Your task to perform on an android device: clear history in the chrome app Image 0: 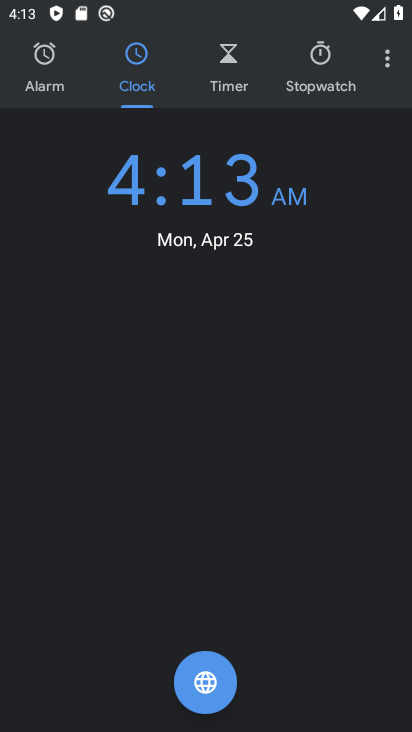
Step 0: press back button
Your task to perform on an android device: clear history in the chrome app Image 1: 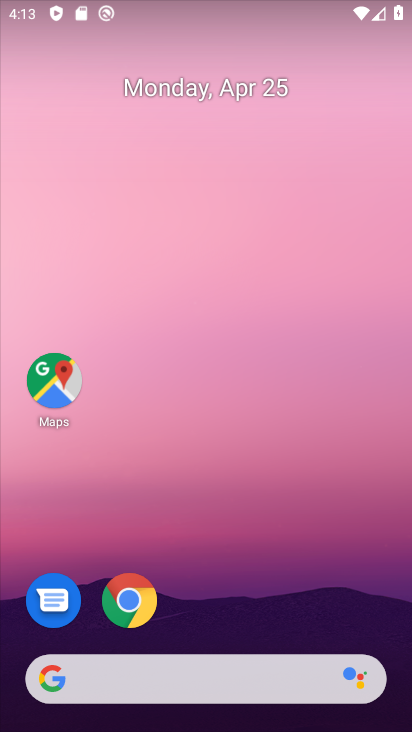
Step 1: click (131, 613)
Your task to perform on an android device: clear history in the chrome app Image 2: 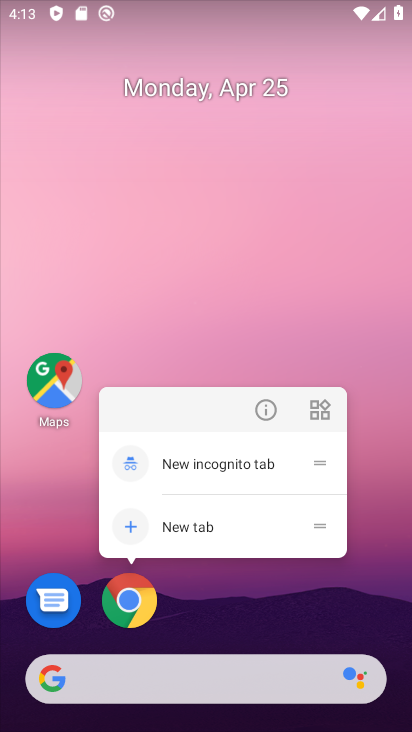
Step 2: click (128, 607)
Your task to perform on an android device: clear history in the chrome app Image 3: 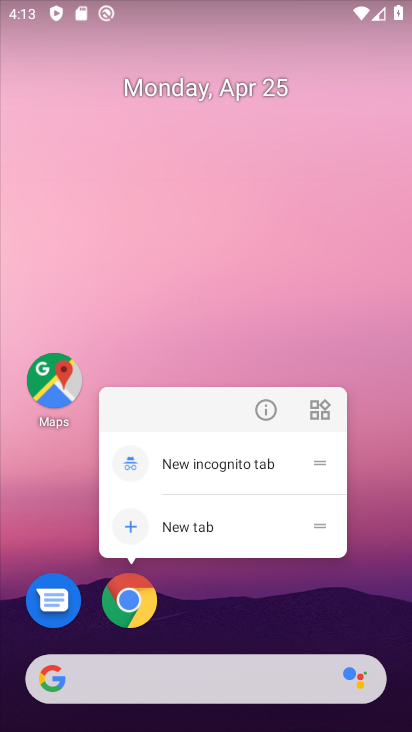
Step 3: click (126, 610)
Your task to perform on an android device: clear history in the chrome app Image 4: 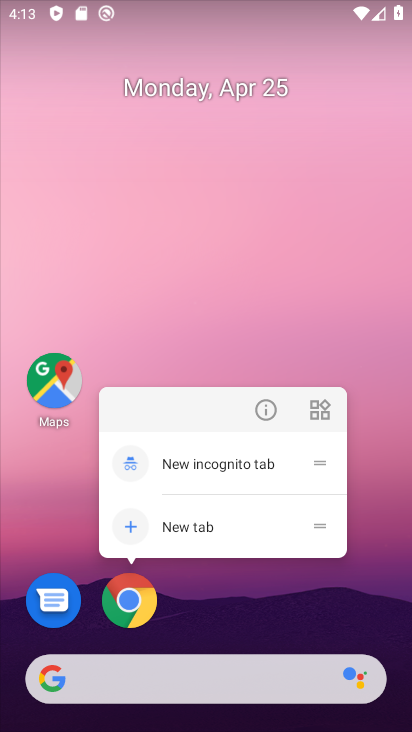
Step 4: click (124, 612)
Your task to perform on an android device: clear history in the chrome app Image 5: 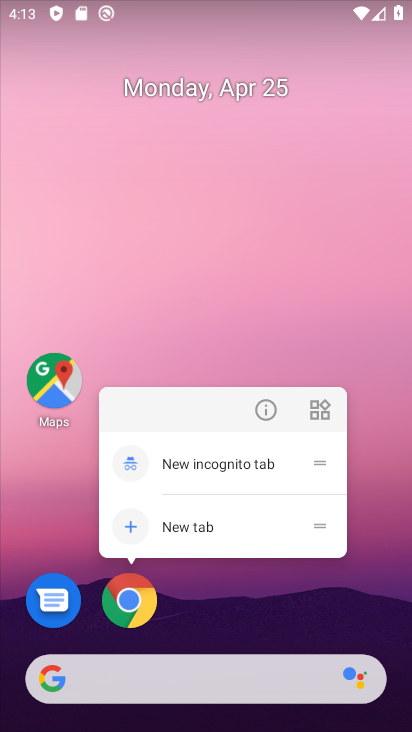
Step 5: click (138, 608)
Your task to perform on an android device: clear history in the chrome app Image 6: 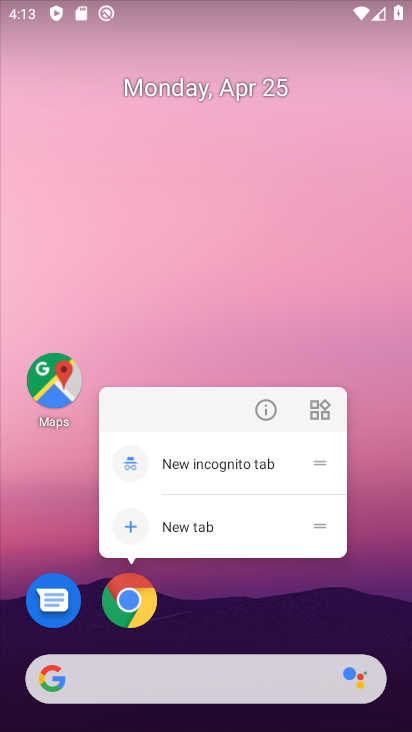
Step 6: click (135, 608)
Your task to perform on an android device: clear history in the chrome app Image 7: 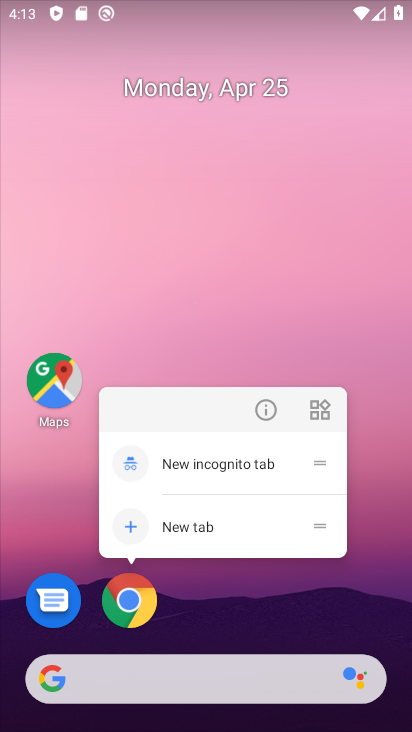
Step 7: click (137, 608)
Your task to perform on an android device: clear history in the chrome app Image 8: 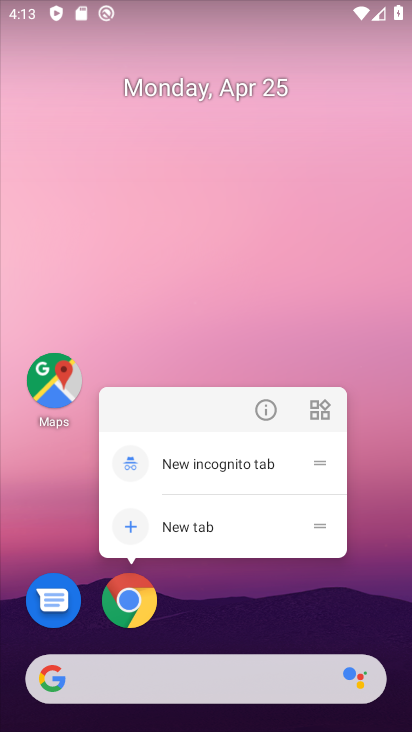
Step 8: click (146, 625)
Your task to perform on an android device: clear history in the chrome app Image 9: 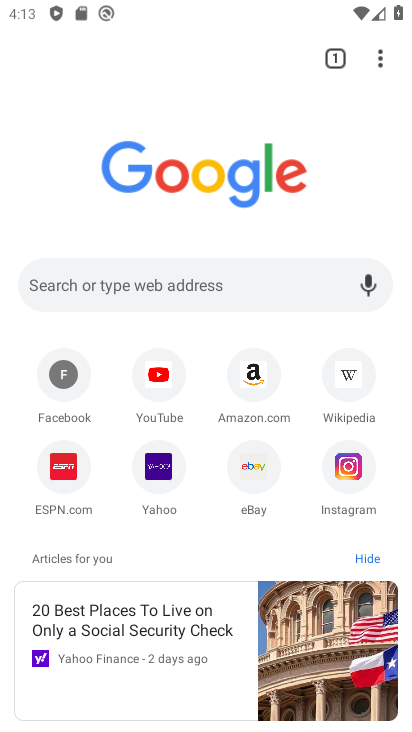
Step 9: click (389, 72)
Your task to perform on an android device: clear history in the chrome app Image 10: 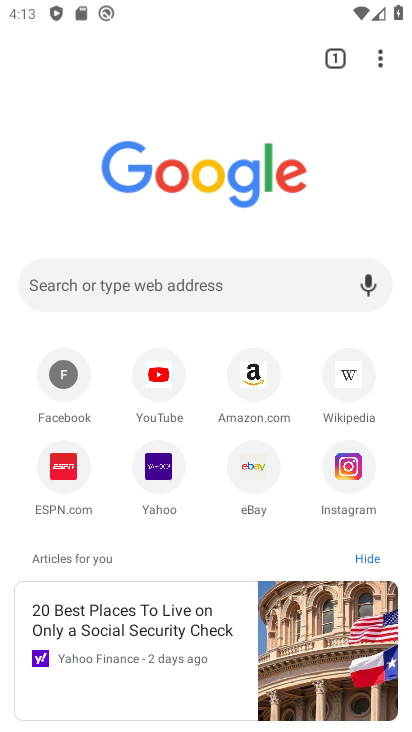
Step 10: click (255, 328)
Your task to perform on an android device: clear history in the chrome app Image 11: 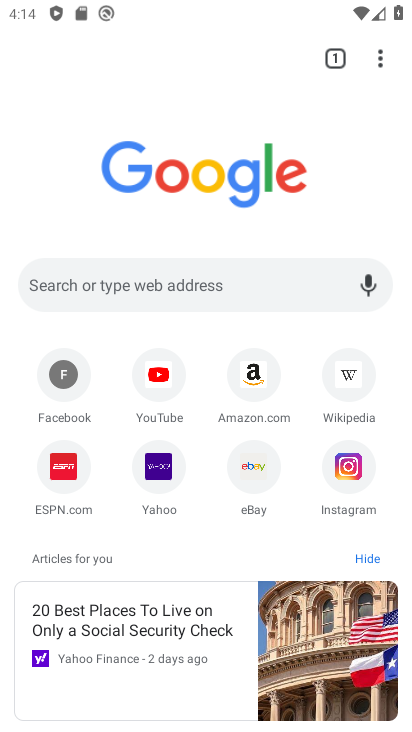
Step 11: task complete